Your task to perform on an android device: allow cookies in the chrome app Image 0: 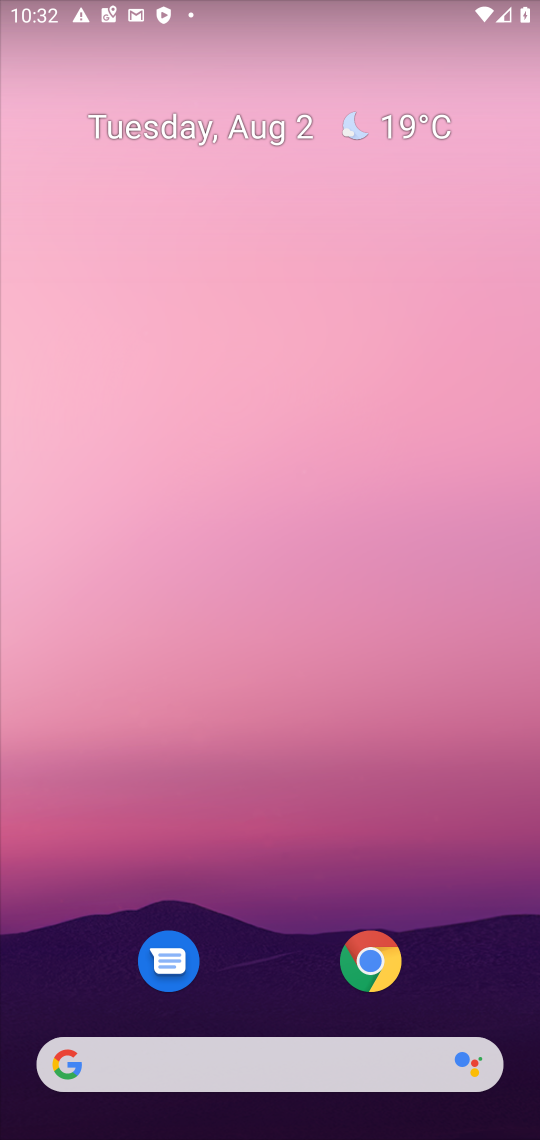
Step 0: drag from (220, 893) to (280, 190)
Your task to perform on an android device: allow cookies in the chrome app Image 1: 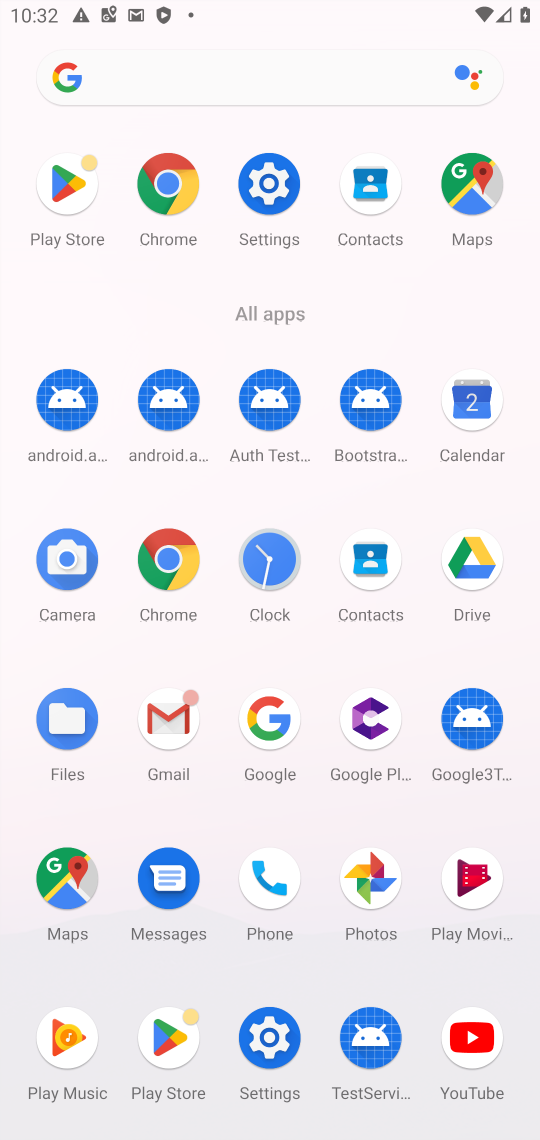
Step 1: click (166, 192)
Your task to perform on an android device: allow cookies in the chrome app Image 2: 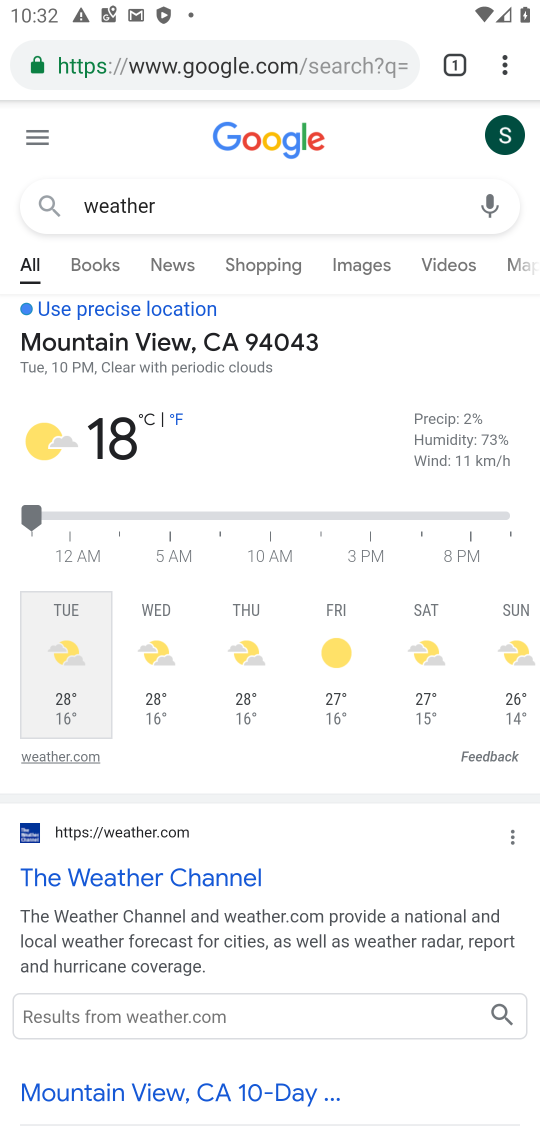
Step 2: click (509, 63)
Your task to perform on an android device: allow cookies in the chrome app Image 3: 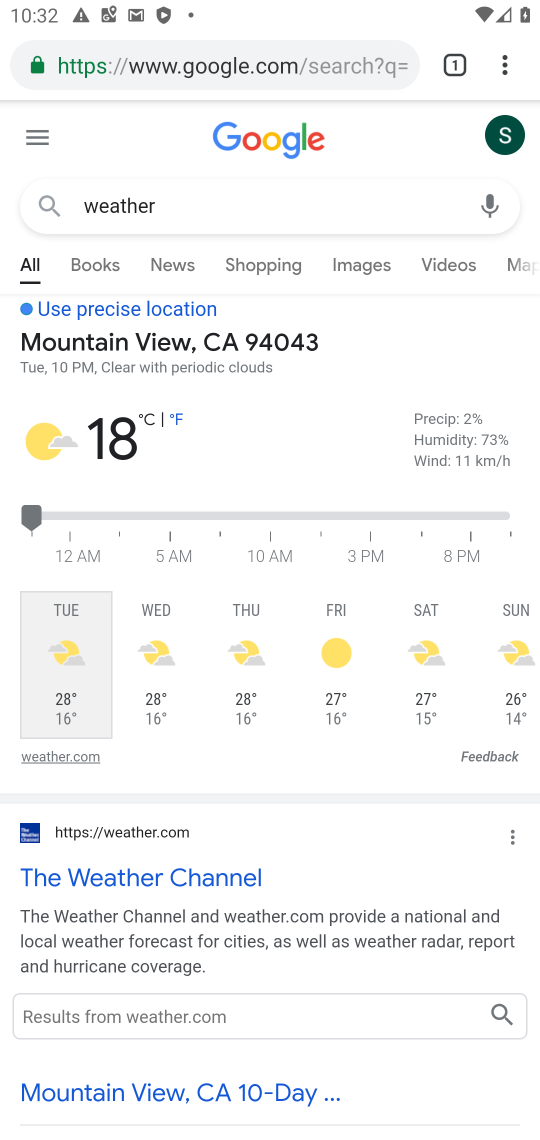
Step 3: drag from (509, 63) to (268, 771)
Your task to perform on an android device: allow cookies in the chrome app Image 4: 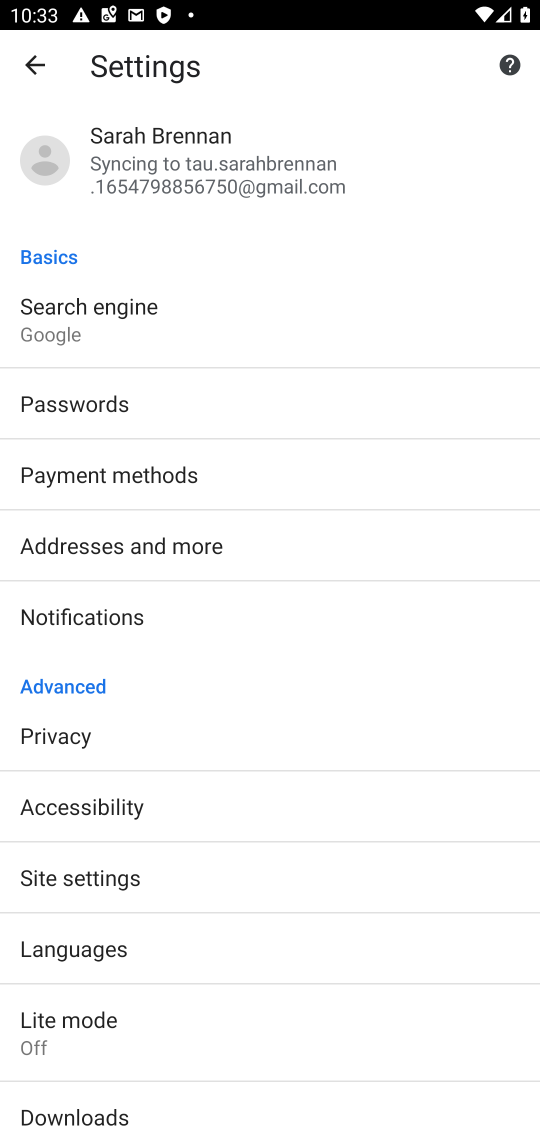
Step 4: drag from (88, 773) to (34, 70)
Your task to perform on an android device: allow cookies in the chrome app Image 5: 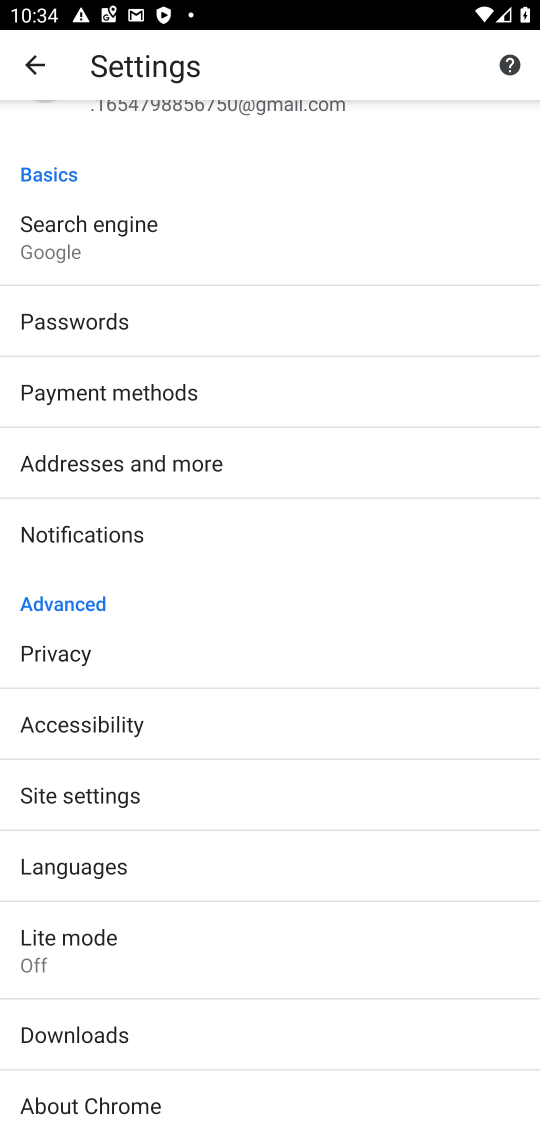
Step 5: drag from (228, 301) to (188, 989)
Your task to perform on an android device: allow cookies in the chrome app Image 6: 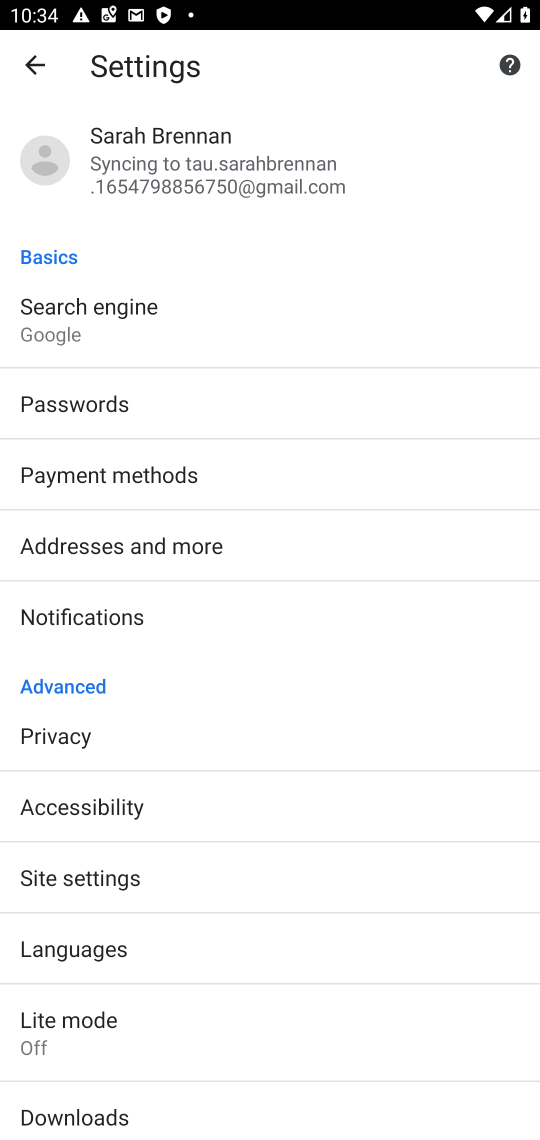
Step 6: click (116, 871)
Your task to perform on an android device: allow cookies in the chrome app Image 7: 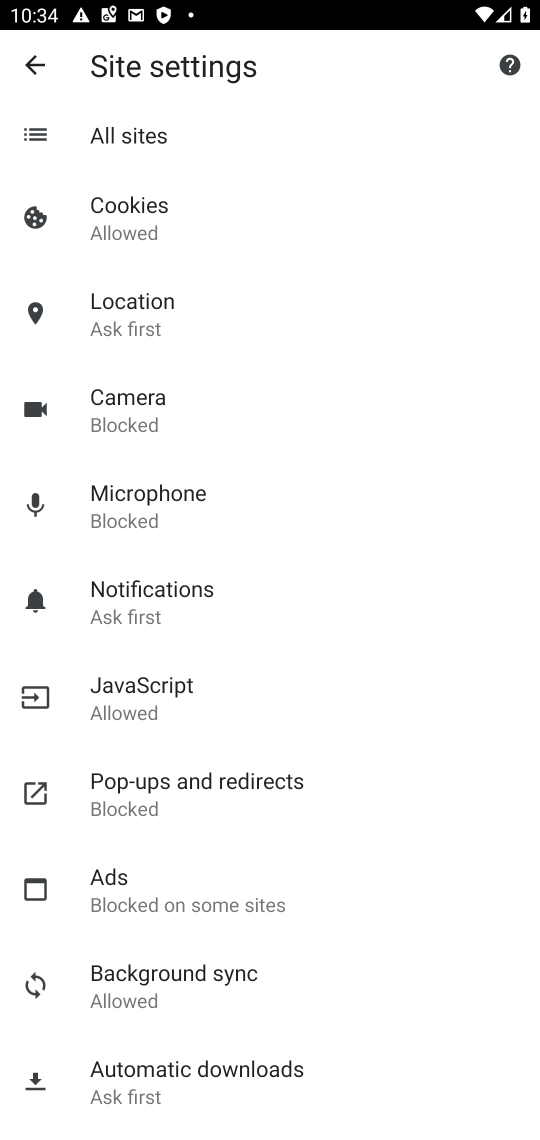
Step 7: click (97, 221)
Your task to perform on an android device: allow cookies in the chrome app Image 8: 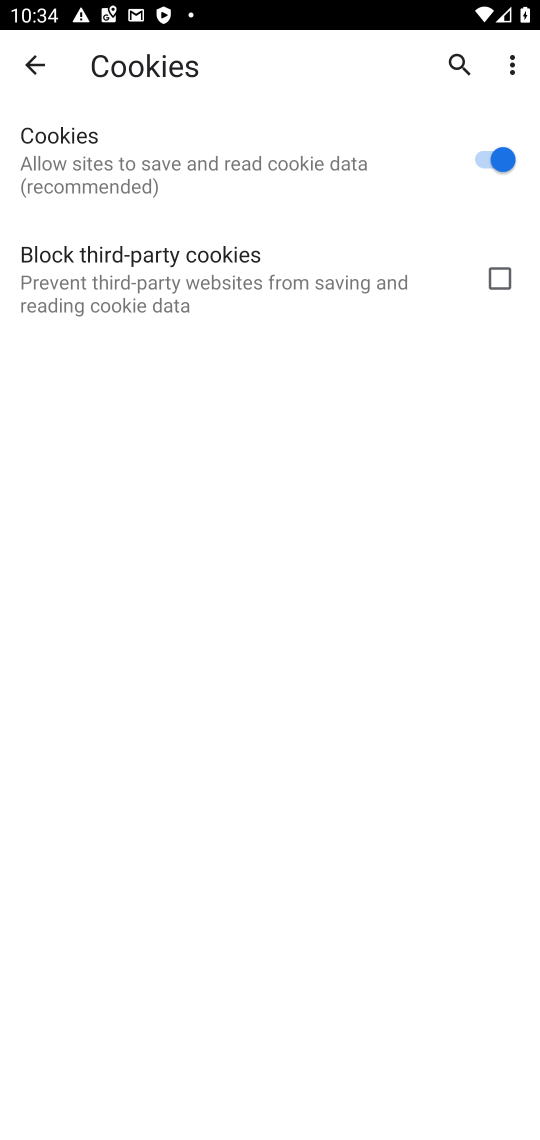
Step 8: task complete